Your task to perform on an android device: check battery use Image 0: 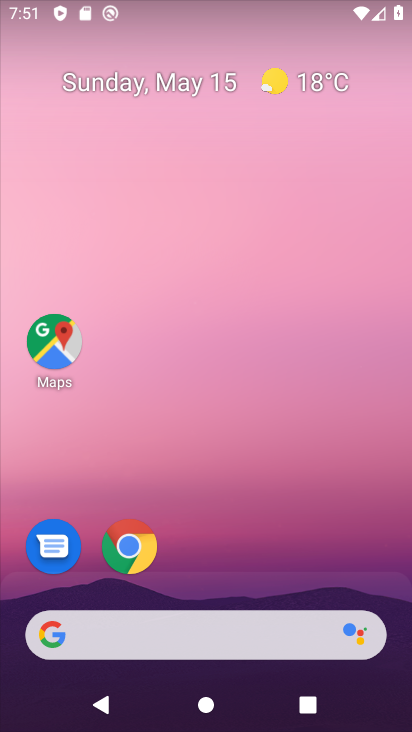
Step 0: drag from (268, 589) to (157, 71)
Your task to perform on an android device: check battery use Image 1: 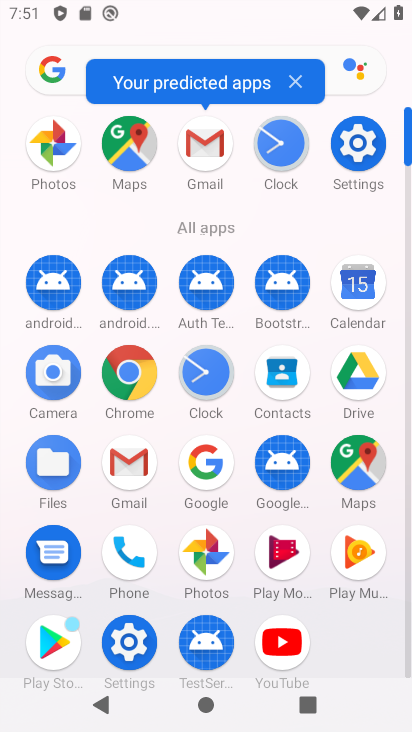
Step 1: click (355, 144)
Your task to perform on an android device: check battery use Image 2: 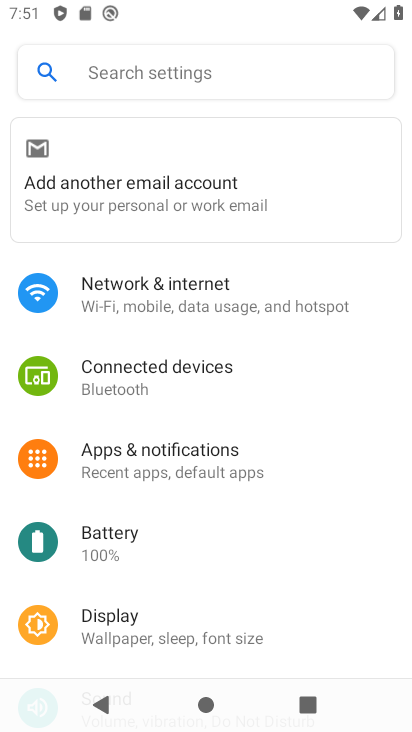
Step 2: click (119, 545)
Your task to perform on an android device: check battery use Image 3: 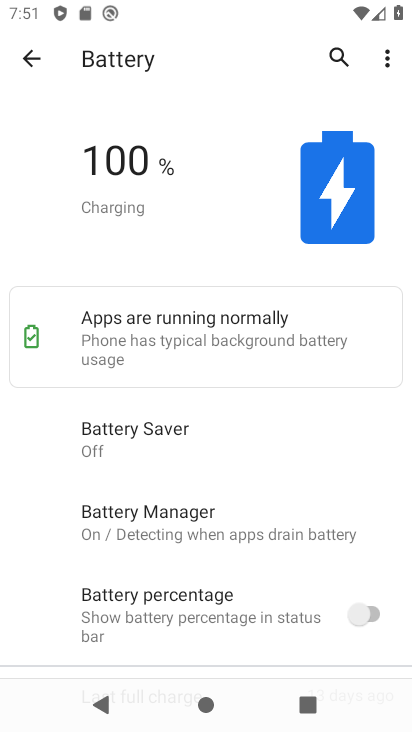
Step 3: click (389, 59)
Your task to perform on an android device: check battery use Image 4: 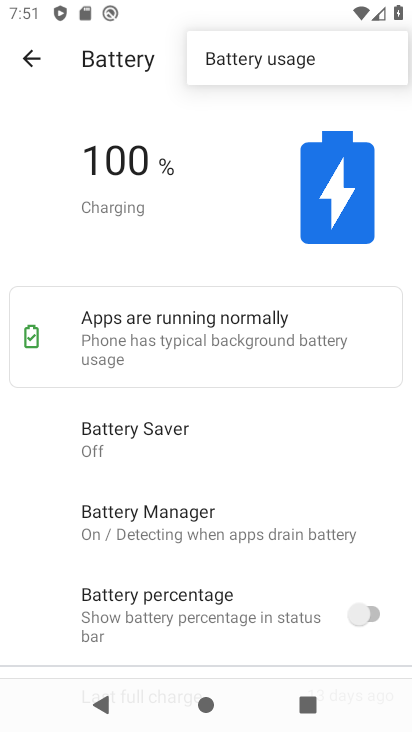
Step 4: click (263, 74)
Your task to perform on an android device: check battery use Image 5: 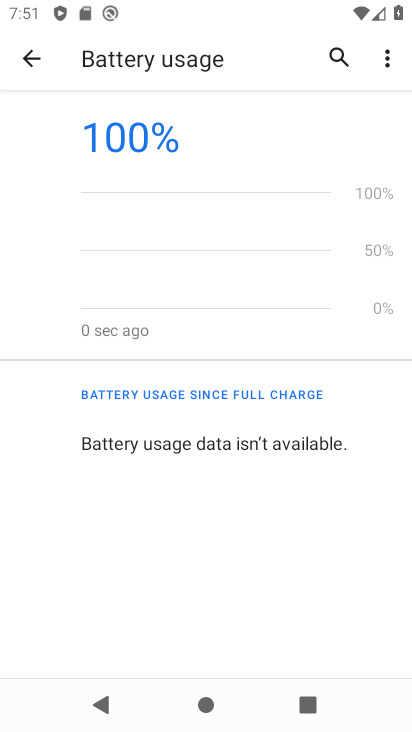
Step 5: task complete